Your task to perform on an android device: Open Yahoo.com Image 0: 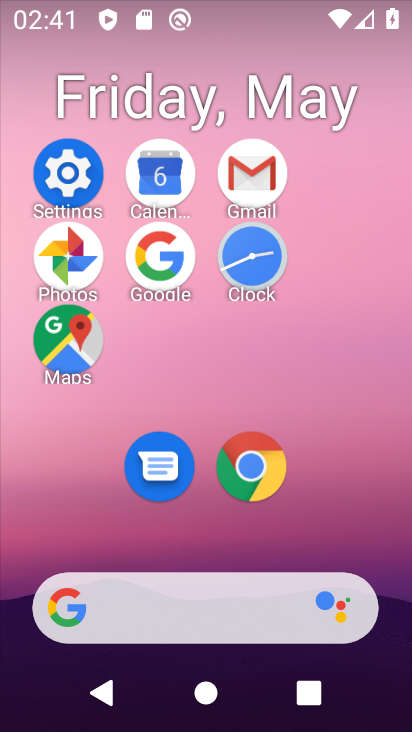
Step 0: click (245, 448)
Your task to perform on an android device: Open Yahoo.com Image 1: 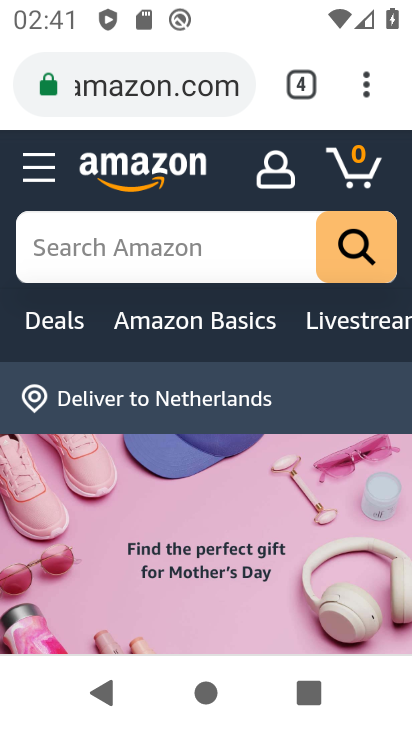
Step 1: click (305, 83)
Your task to perform on an android device: Open Yahoo.com Image 2: 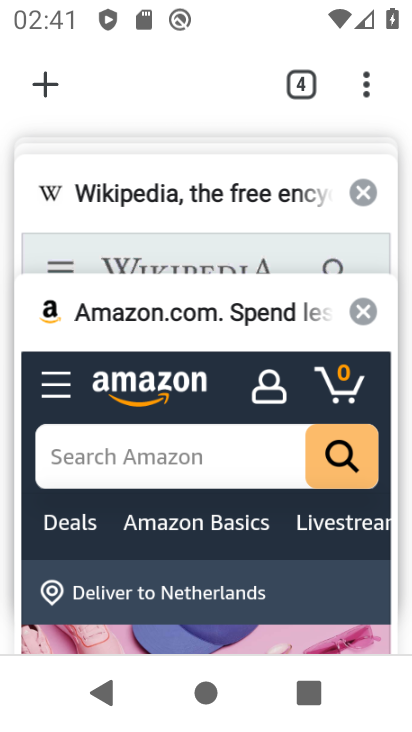
Step 2: drag from (197, 193) to (204, 475)
Your task to perform on an android device: Open Yahoo.com Image 3: 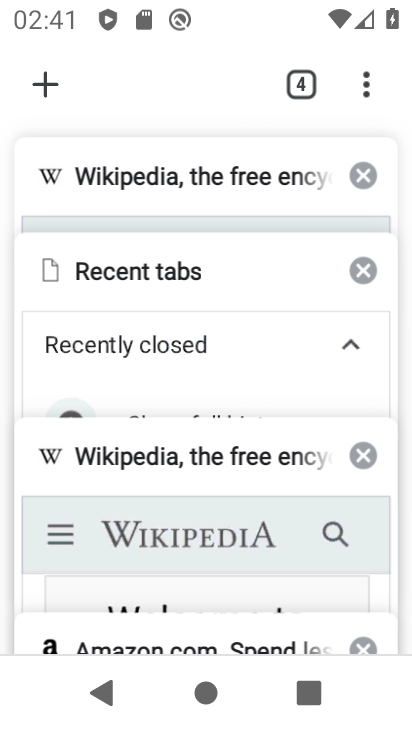
Step 3: drag from (179, 270) to (200, 119)
Your task to perform on an android device: Open Yahoo.com Image 4: 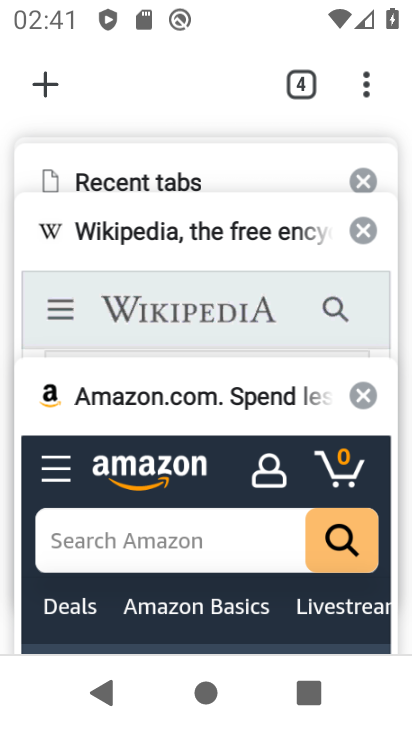
Step 4: click (61, 107)
Your task to perform on an android device: Open Yahoo.com Image 5: 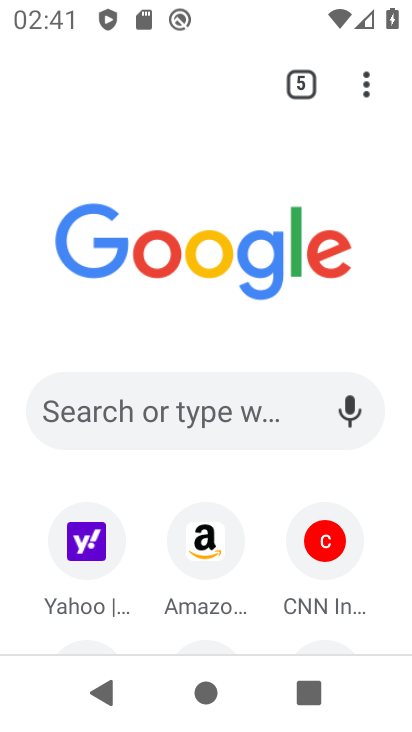
Step 5: click (75, 543)
Your task to perform on an android device: Open Yahoo.com Image 6: 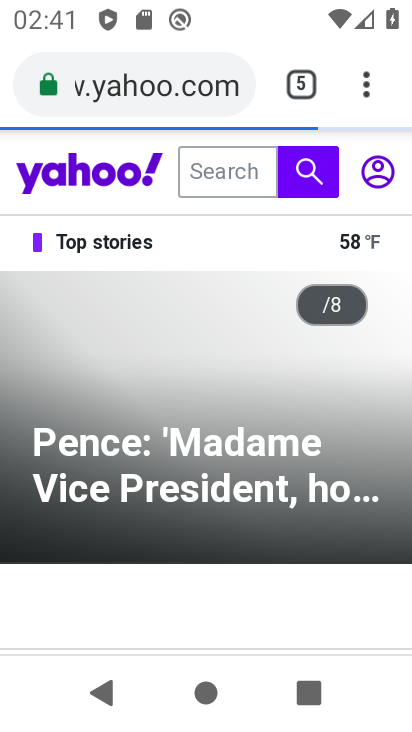
Step 6: task complete